Your task to perform on an android device: Open internet settings Image 0: 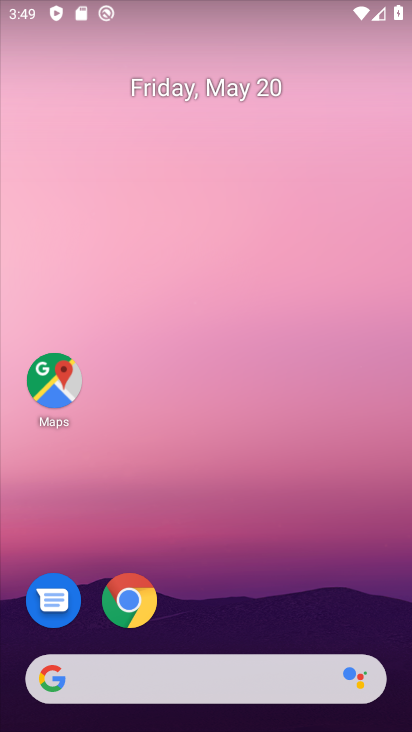
Step 0: drag from (263, 639) to (338, 100)
Your task to perform on an android device: Open internet settings Image 1: 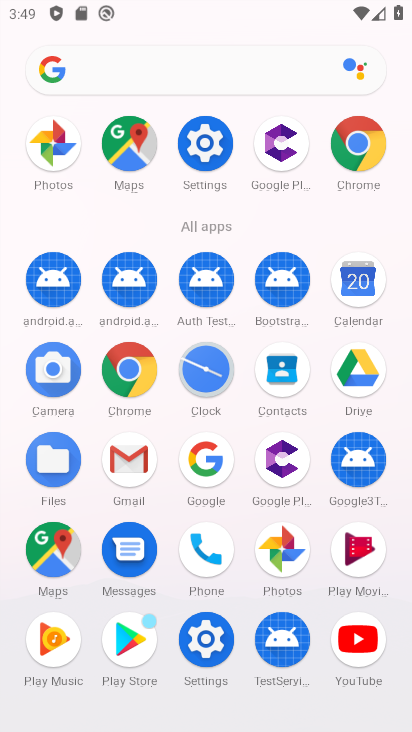
Step 1: click (217, 158)
Your task to perform on an android device: Open internet settings Image 2: 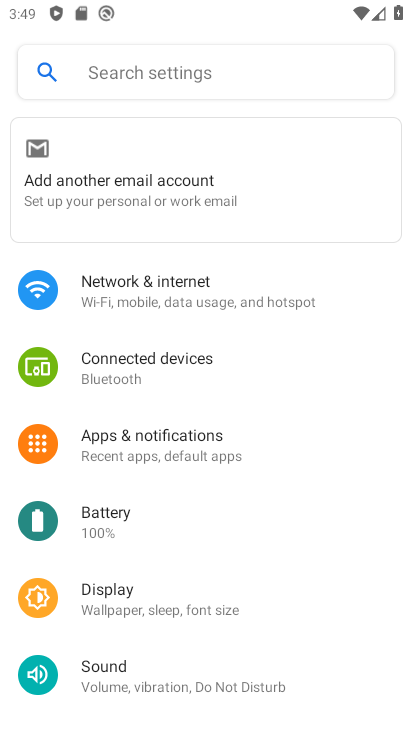
Step 2: click (173, 286)
Your task to perform on an android device: Open internet settings Image 3: 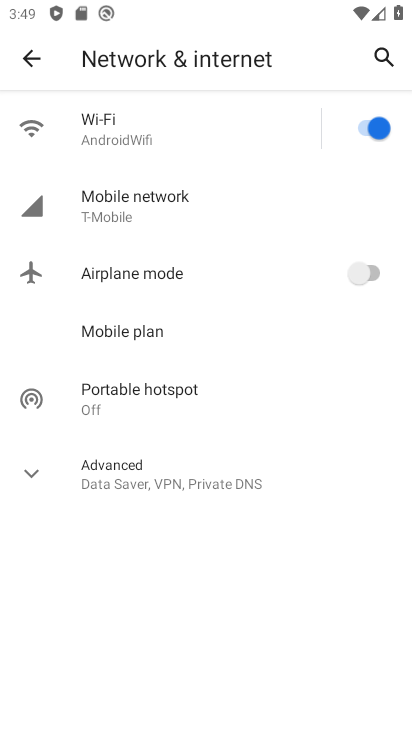
Step 3: task complete